Your task to perform on an android device: Go to Maps Image 0: 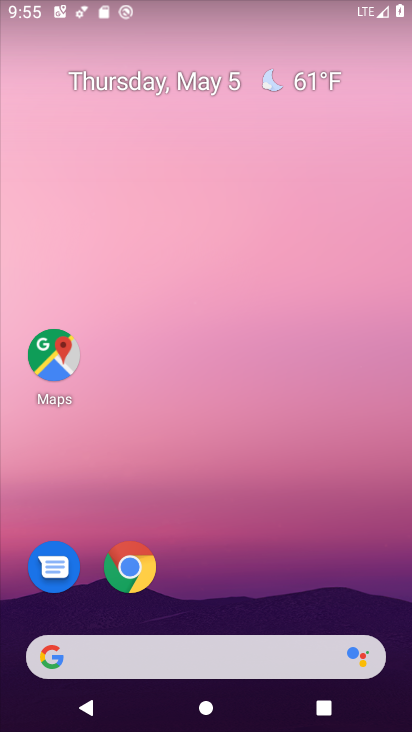
Step 0: click (57, 363)
Your task to perform on an android device: Go to Maps Image 1: 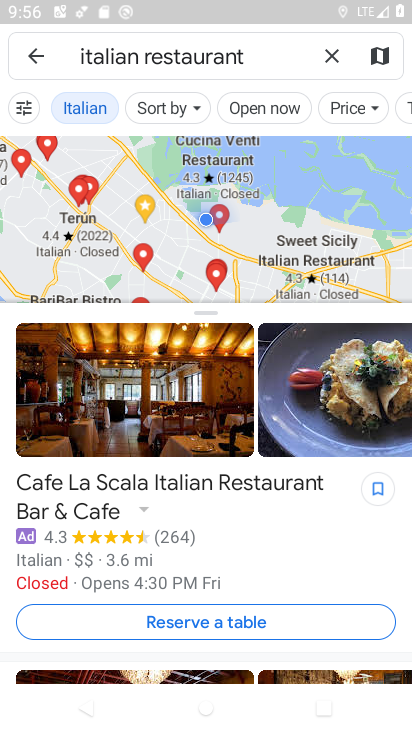
Step 1: task complete